Your task to perform on an android device: Go to wifi settings Image 0: 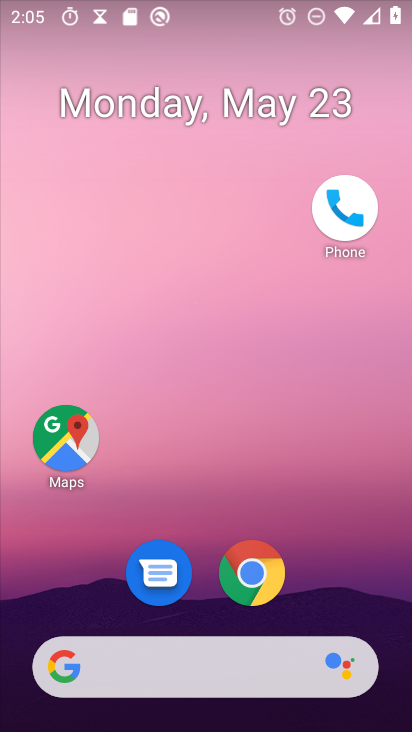
Step 0: press home button
Your task to perform on an android device: Go to wifi settings Image 1: 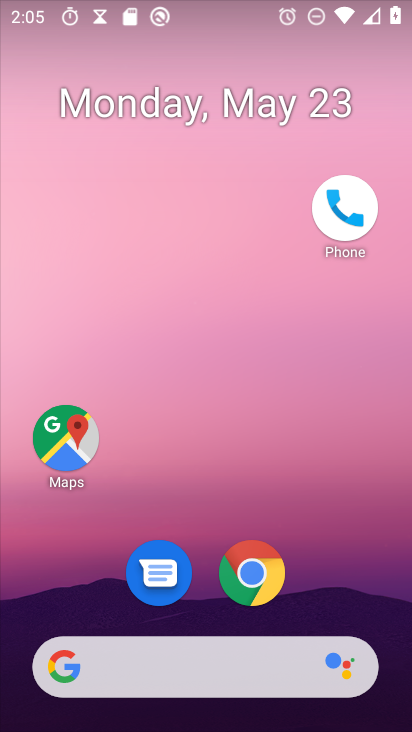
Step 1: drag from (167, 678) to (224, 152)
Your task to perform on an android device: Go to wifi settings Image 2: 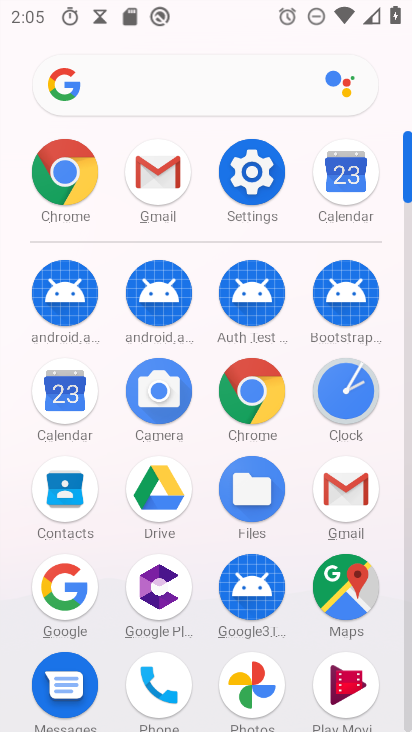
Step 2: click (255, 189)
Your task to perform on an android device: Go to wifi settings Image 3: 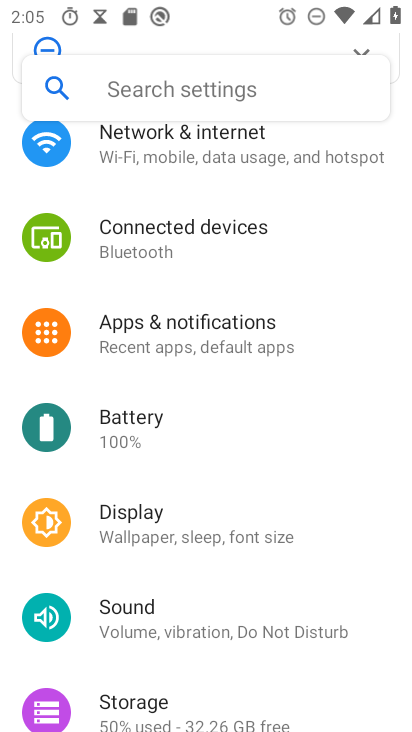
Step 3: drag from (321, 199) to (376, 661)
Your task to perform on an android device: Go to wifi settings Image 4: 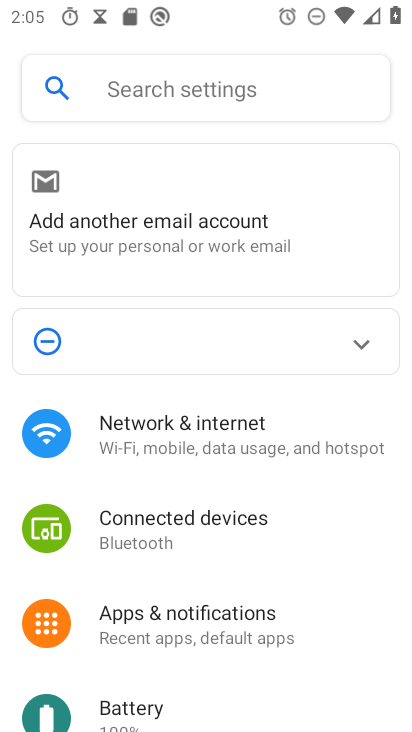
Step 4: click (215, 436)
Your task to perform on an android device: Go to wifi settings Image 5: 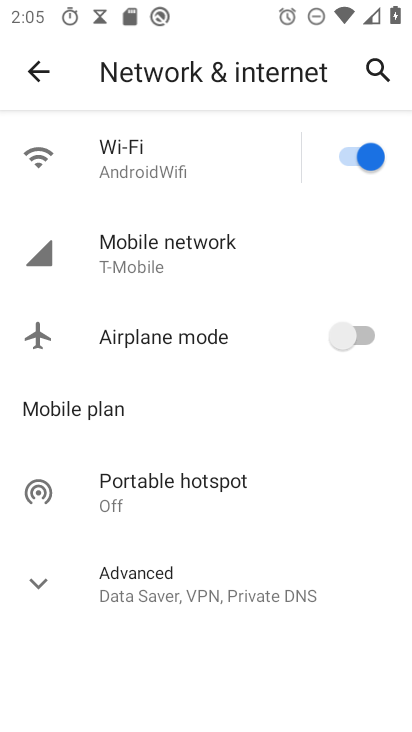
Step 5: click (142, 170)
Your task to perform on an android device: Go to wifi settings Image 6: 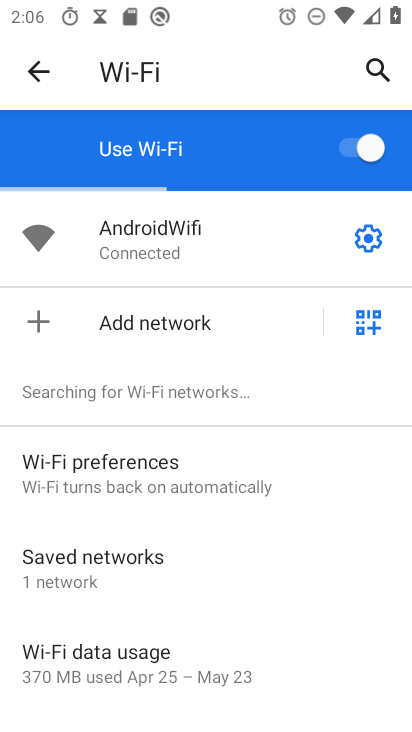
Step 6: task complete